Your task to perform on an android device: see tabs open on other devices in the chrome app Image 0: 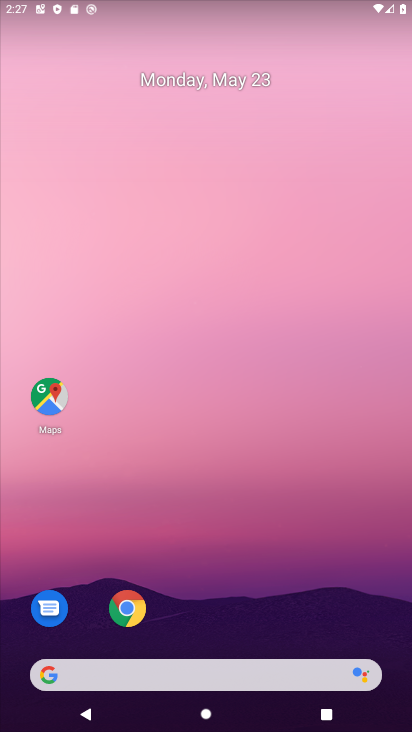
Step 0: drag from (190, 632) to (124, 9)
Your task to perform on an android device: see tabs open on other devices in the chrome app Image 1: 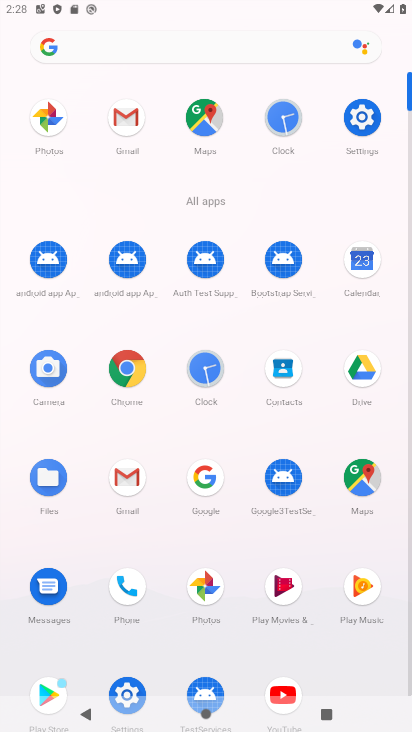
Step 1: click (130, 374)
Your task to perform on an android device: see tabs open on other devices in the chrome app Image 2: 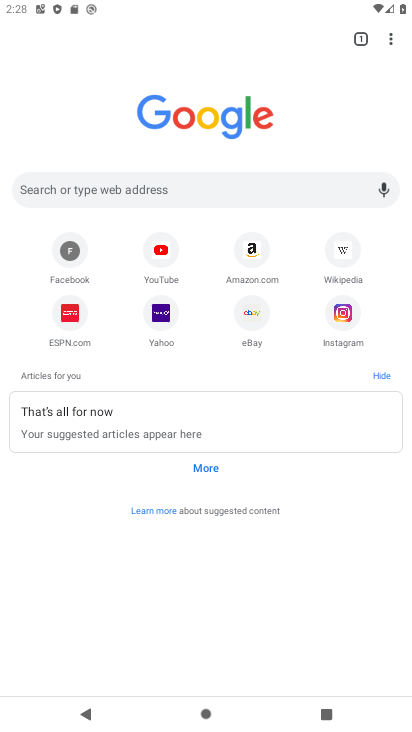
Step 2: click (393, 33)
Your task to perform on an android device: see tabs open on other devices in the chrome app Image 3: 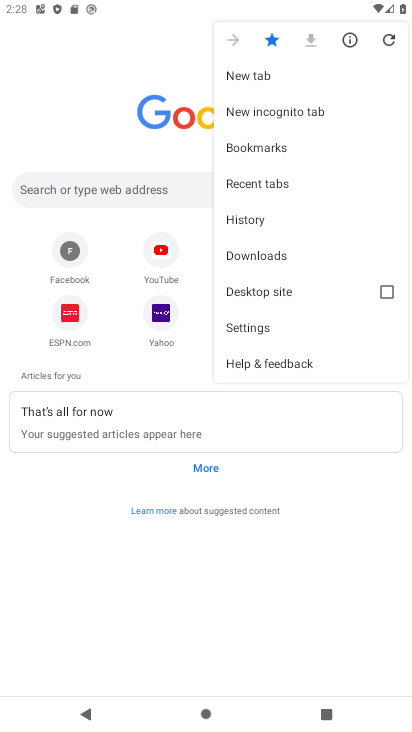
Step 3: click (269, 183)
Your task to perform on an android device: see tabs open on other devices in the chrome app Image 4: 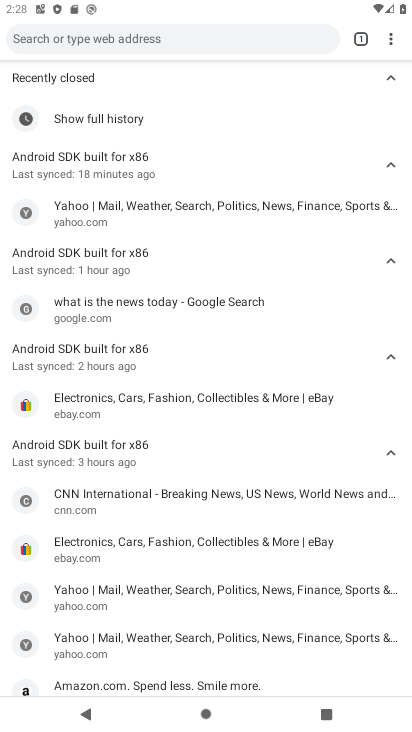
Step 4: task complete